Your task to perform on an android device: Open Google Chrome and click the shortcut for Amazon.com Image 0: 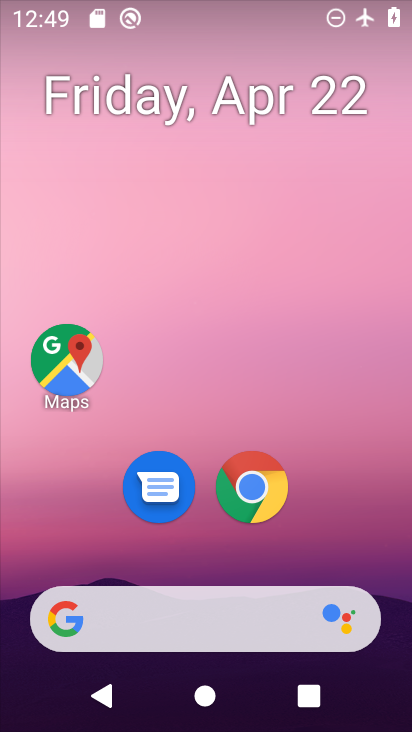
Step 0: drag from (359, 455) to (331, 190)
Your task to perform on an android device: Open Google Chrome and click the shortcut for Amazon.com Image 1: 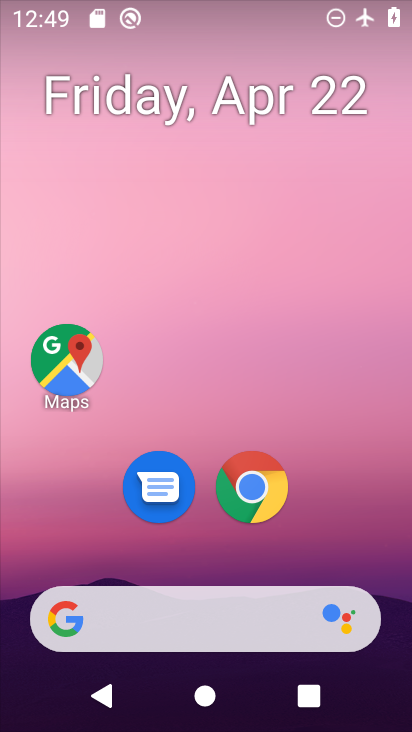
Step 1: drag from (344, 442) to (345, 288)
Your task to perform on an android device: Open Google Chrome and click the shortcut for Amazon.com Image 2: 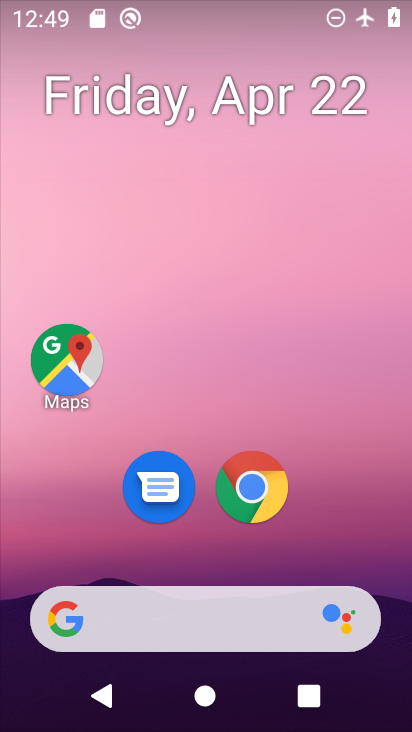
Step 2: drag from (335, 605) to (349, 280)
Your task to perform on an android device: Open Google Chrome and click the shortcut for Amazon.com Image 3: 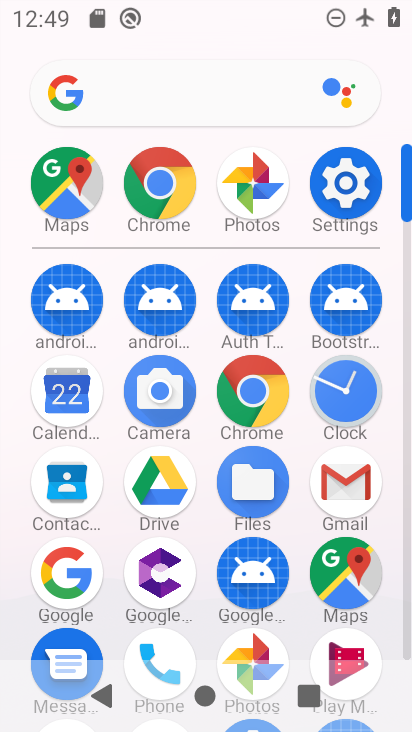
Step 3: click (264, 390)
Your task to perform on an android device: Open Google Chrome and click the shortcut for Amazon.com Image 4: 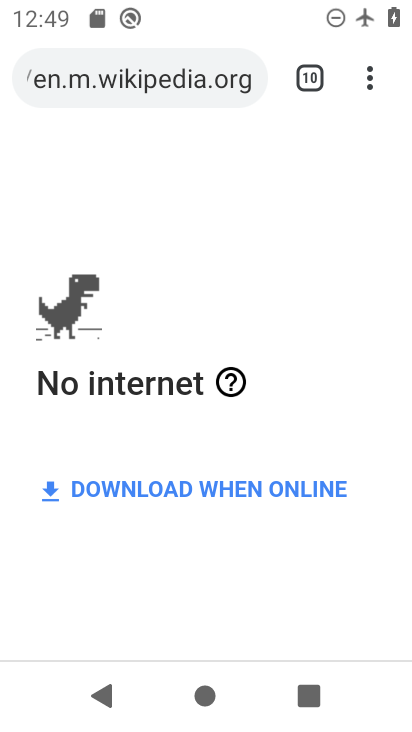
Step 4: click (360, 75)
Your task to perform on an android device: Open Google Chrome and click the shortcut for Amazon.com Image 5: 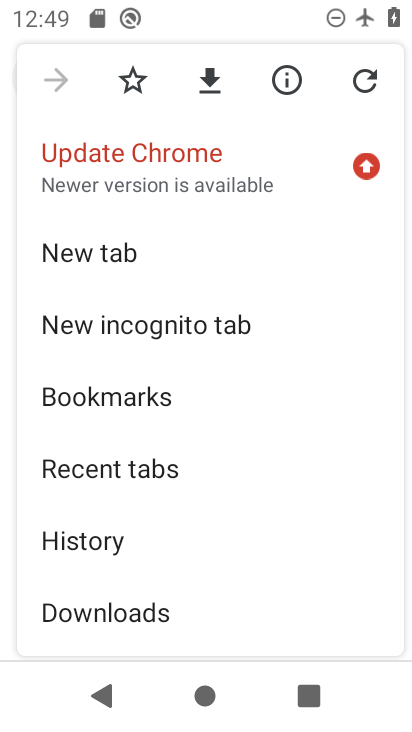
Step 5: click (145, 267)
Your task to perform on an android device: Open Google Chrome and click the shortcut for Amazon.com Image 6: 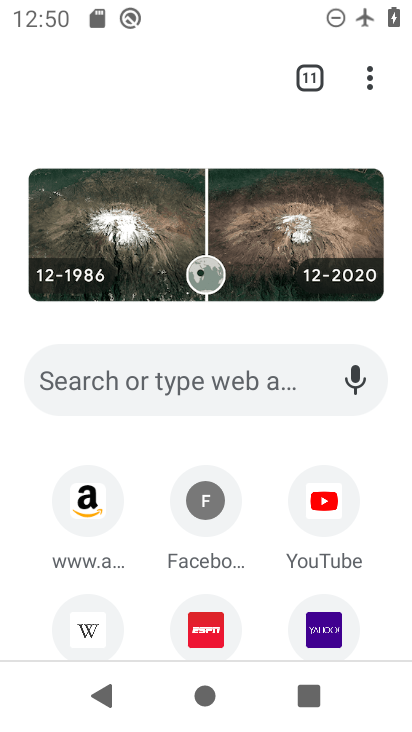
Step 6: click (80, 500)
Your task to perform on an android device: Open Google Chrome and click the shortcut for Amazon.com Image 7: 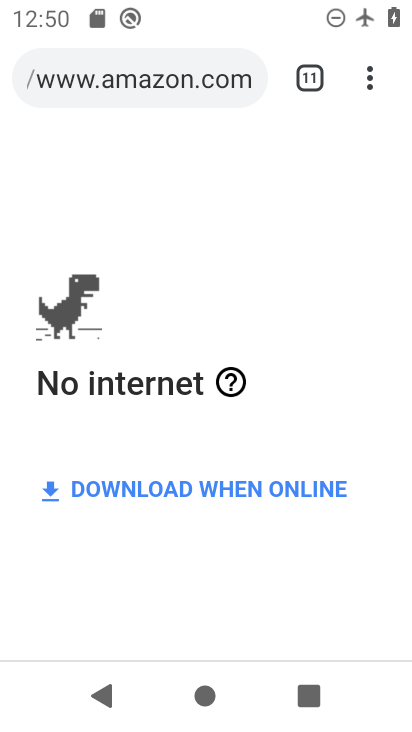
Step 7: task complete